Your task to perform on an android device: change notification settings in the gmail app Image 0: 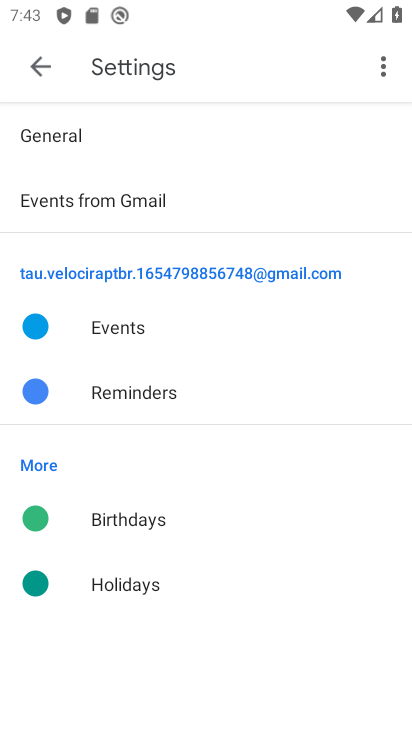
Step 0: press home button
Your task to perform on an android device: change notification settings in the gmail app Image 1: 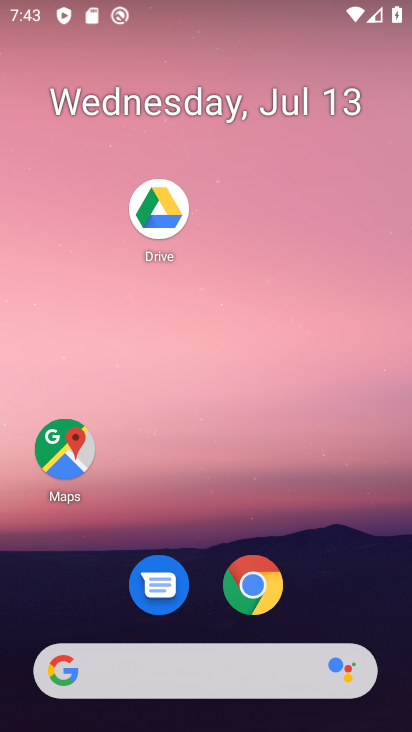
Step 1: drag from (176, 672) to (299, 81)
Your task to perform on an android device: change notification settings in the gmail app Image 2: 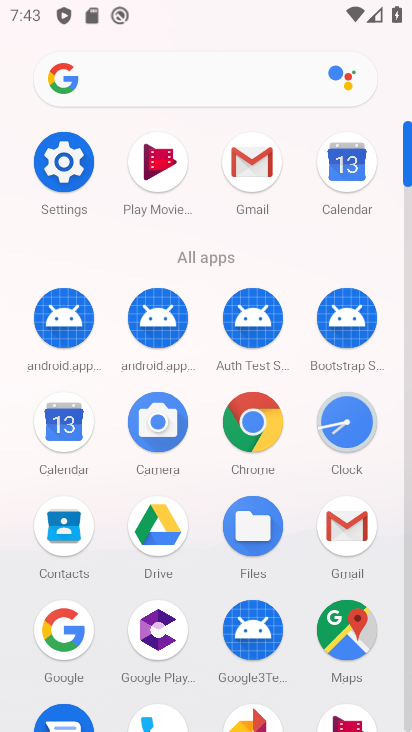
Step 2: click (262, 162)
Your task to perform on an android device: change notification settings in the gmail app Image 3: 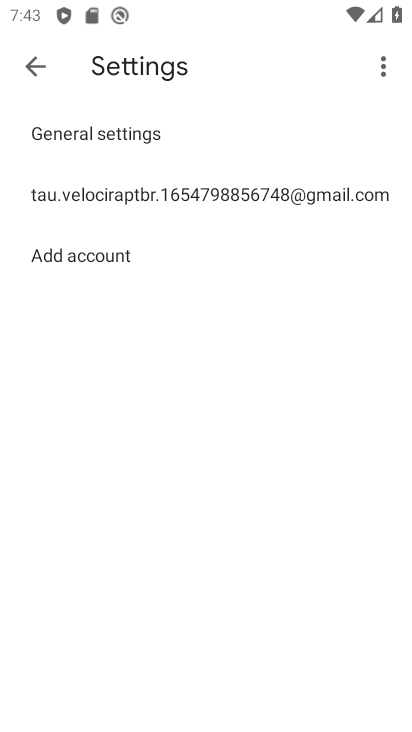
Step 3: click (158, 189)
Your task to perform on an android device: change notification settings in the gmail app Image 4: 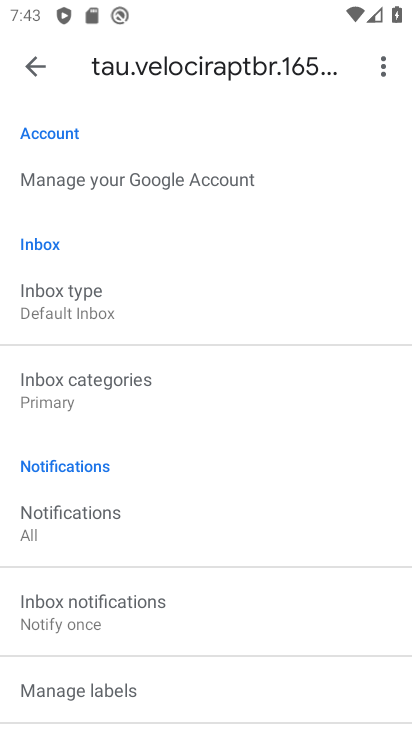
Step 4: click (89, 529)
Your task to perform on an android device: change notification settings in the gmail app Image 5: 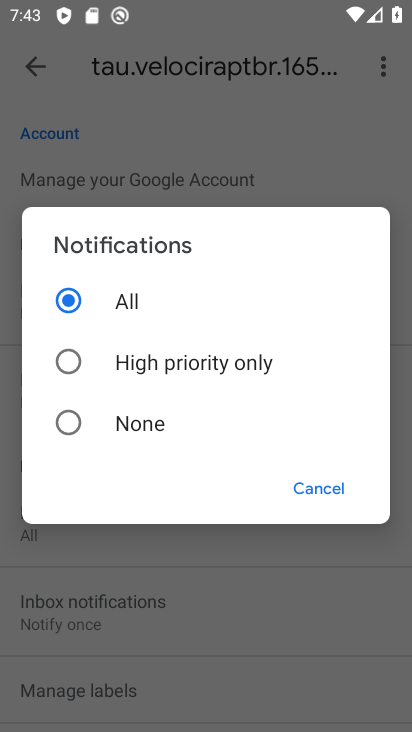
Step 5: click (64, 419)
Your task to perform on an android device: change notification settings in the gmail app Image 6: 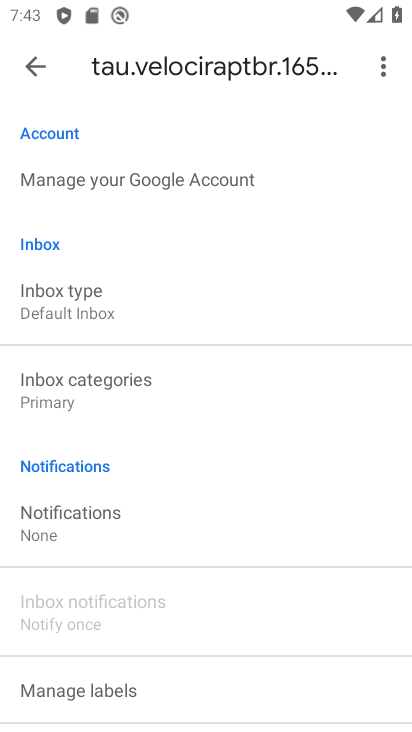
Step 6: task complete